Your task to perform on an android device: change text size in settings app Image 0: 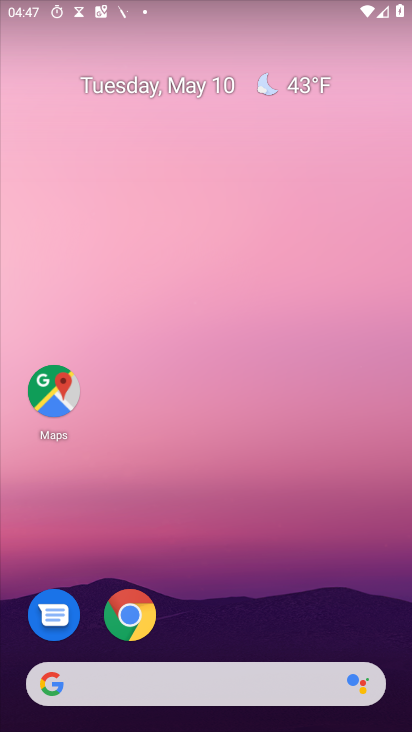
Step 0: drag from (400, 674) to (317, 109)
Your task to perform on an android device: change text size in settings app Image 1: 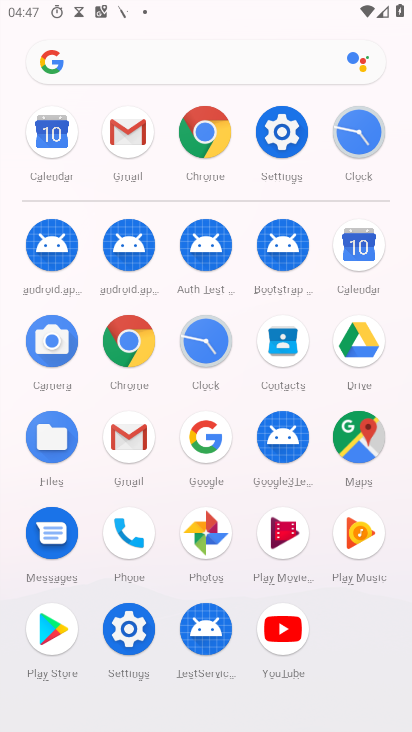
Step 1: click (294, 128)
Your task to perform on an android device: change text size in settings app Image 2: 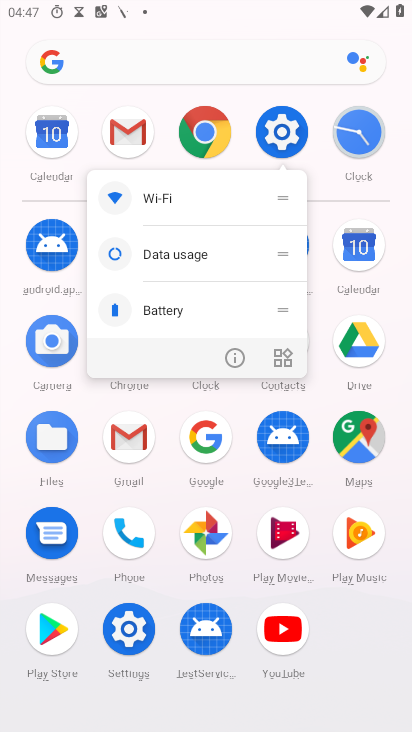
Step 2: click (292, 130)
Your task to perform on an android device: change text size in settings app Image 3: 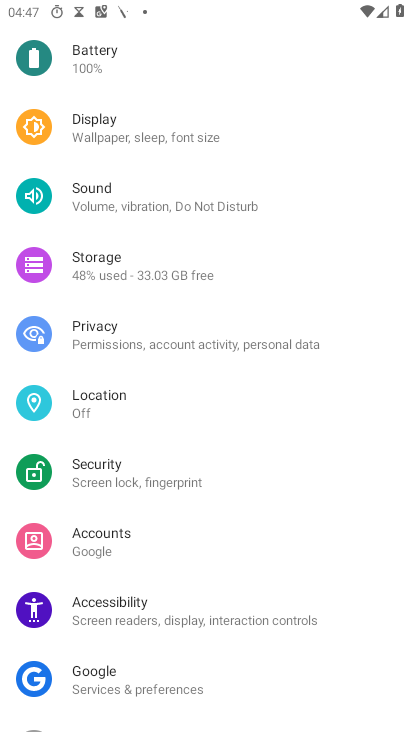
Step 3: drag from (173, 652) to (196, 384)
Your task to perform on an android device: change text size in settings app Image 4: 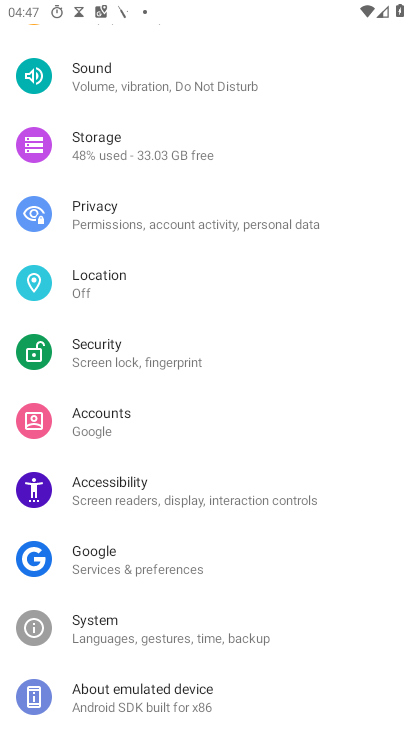
Step 4: click (234, 638)
Your task to perform on an android device: change text size in settings app Image 5: 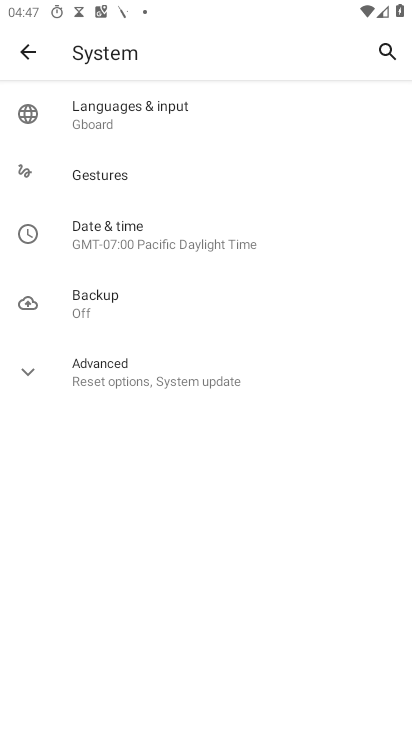
Step 5: press back button
Your task to perform on an android device: change text size in settings app Image 6: 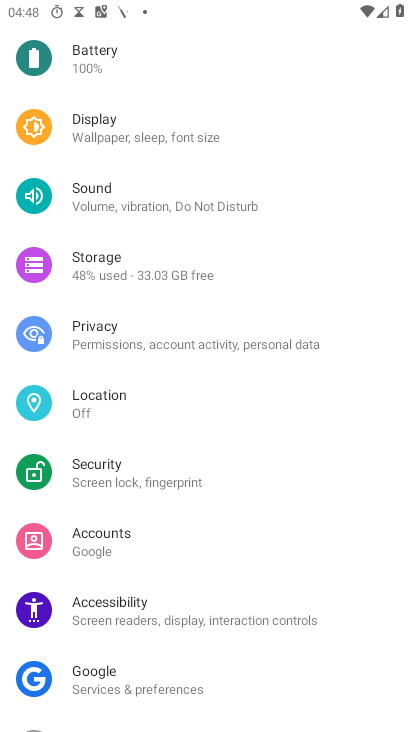
Step 6: drag from (179, 571) to (210, 182)
Your task to perform on an android device: change text size in settings app Image 7: 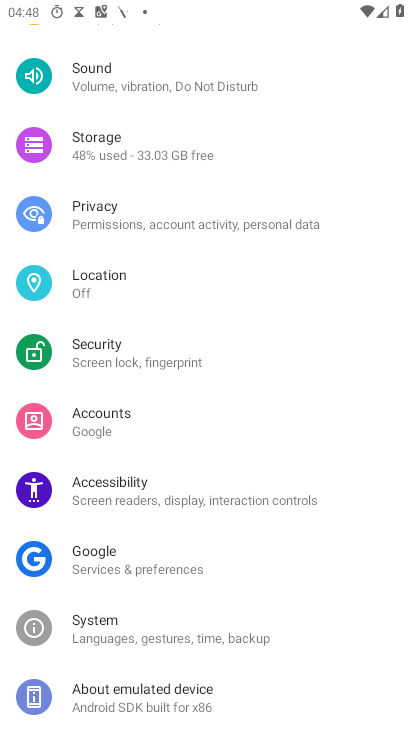
Step 7: click (184, 505)
Your task to perform on an android device: change text size in settings app Image 8: 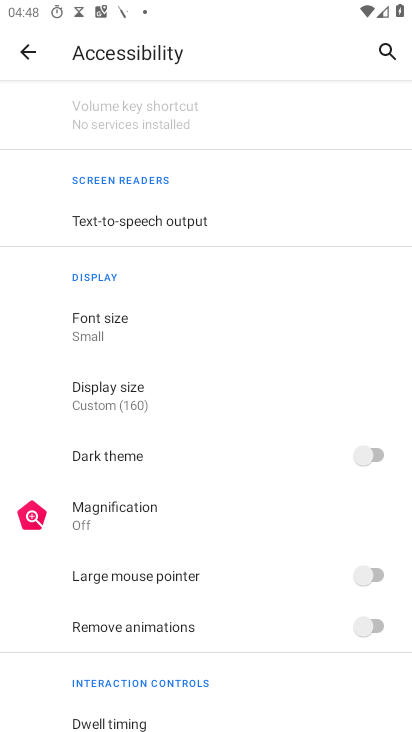
Step 8: click (106, 337)
Your task to perform on an android device: change text size in settings app Image 9: 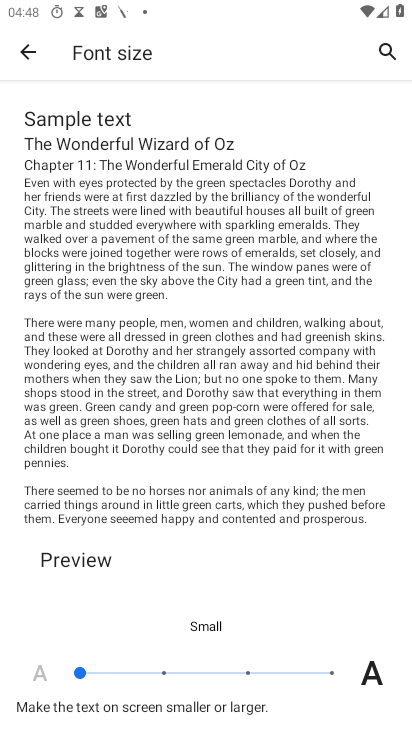
Step 9: click (147, 675)
Your task to perform on an android device: change text size in settings app Image 10: 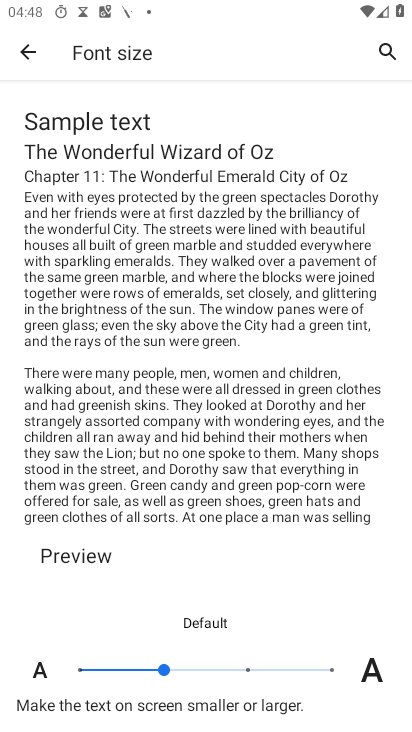
Step 10: task complete